Your task to perform on an android device: change the clock display to digital Image 0: 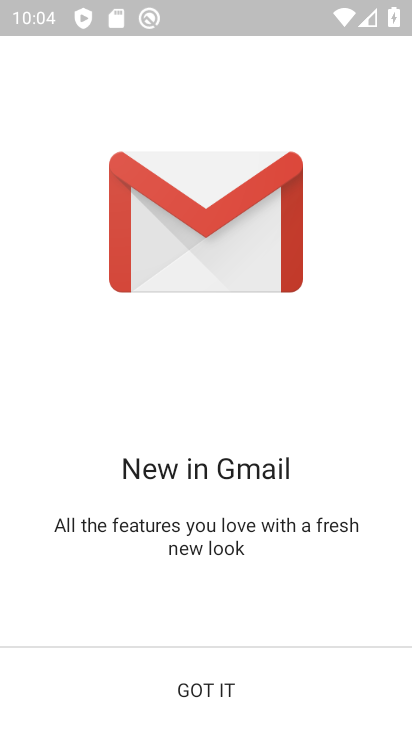
Step 0: click (225, 683)
Your task to perform on an android device: change the clock display to digital Image 1: 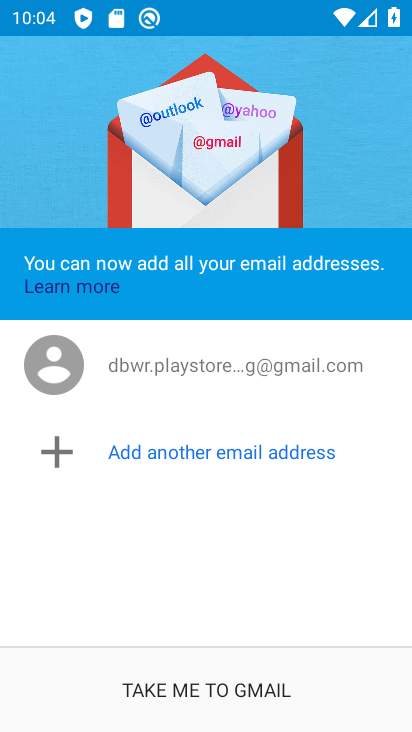
Step 1: click (225, 683)
Your task to perform on an android device: change the clock display to digital Image 2: 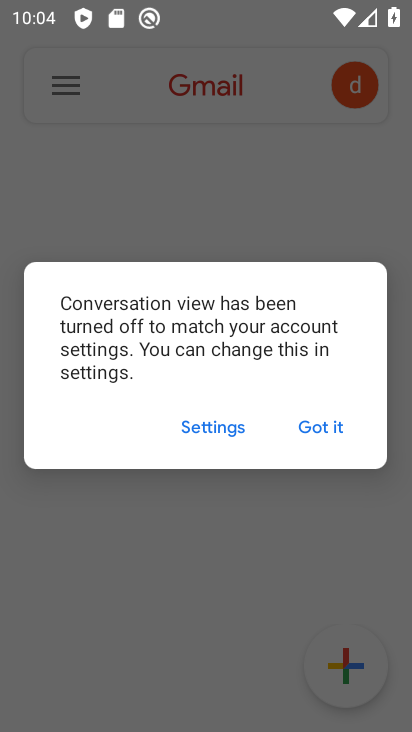
Step 2: press home button
Your task to perform on an android device: change the clock display to digital Image 3: 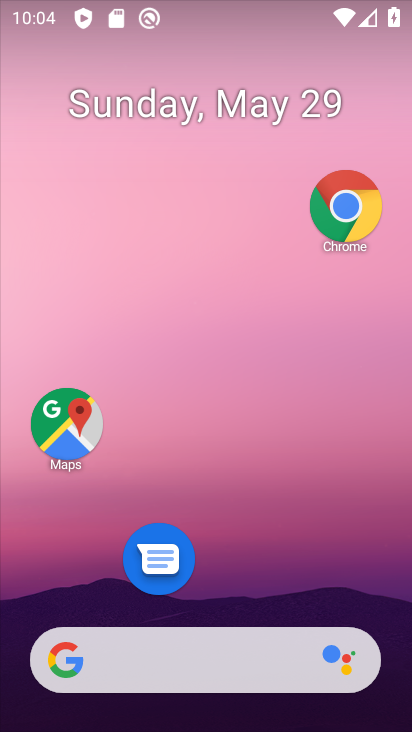
Step 3: drag from (226, 566) to (205, 203)
Your task to perform on an android device: change the clock display to digital Image 4: 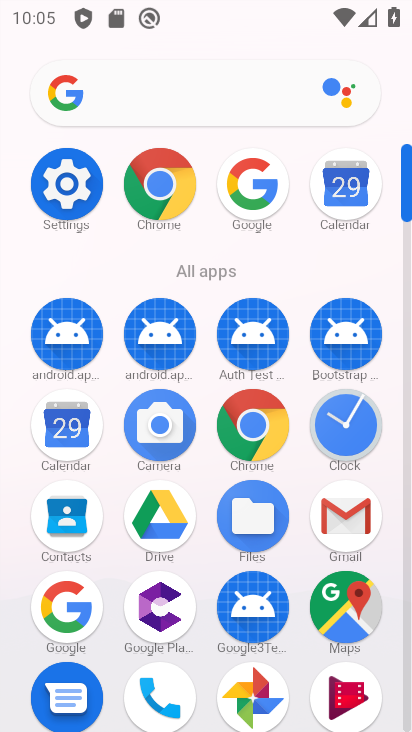
Step 4: drag from (371, 419) to (324, 441)
Your task to perform on an android device: change the clock display to digital Image 5: 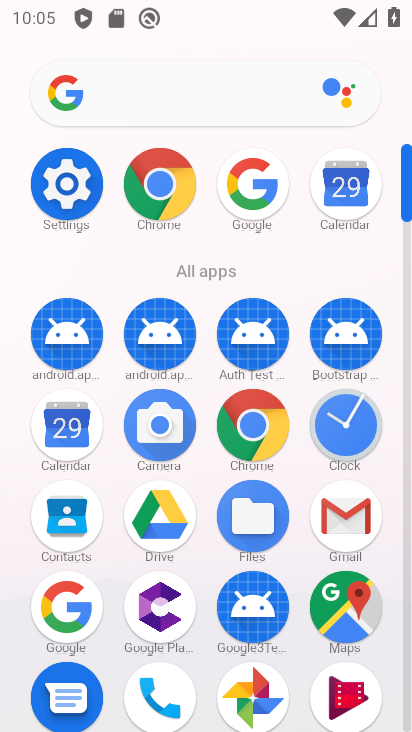
Step 5: click (355, 434)
Your task to perform on an android device: change the clock display to digital Image 6: 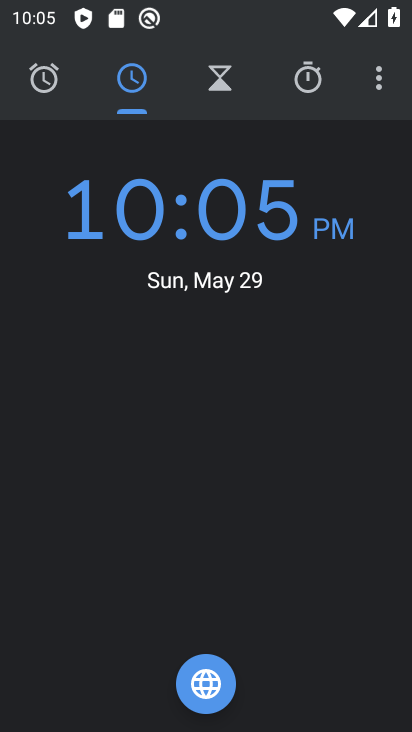
Step 6: click (381, 86)
Your task to perform on an android device: change the clock display to digital Image 7: 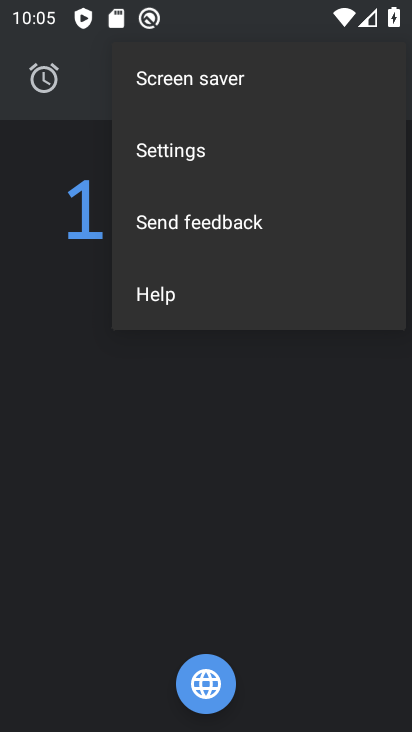
Step 7: click (284, 144)
Your task to perform on an android device: change the clock display to digital Image 8: 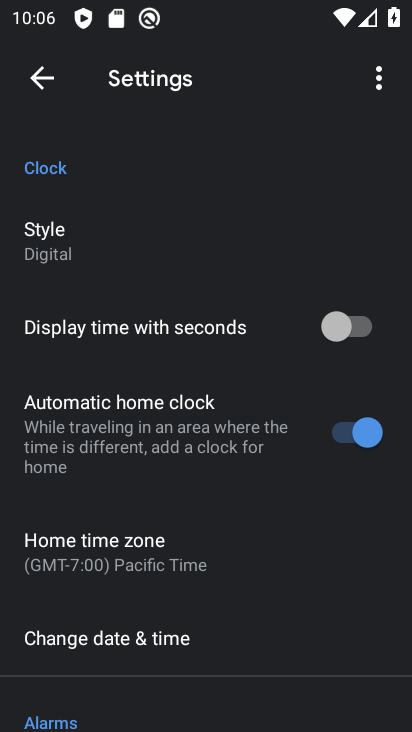
Step 8: task complete